Your task to perform on an android device: What's on my calendar tomorrow? Image 0: 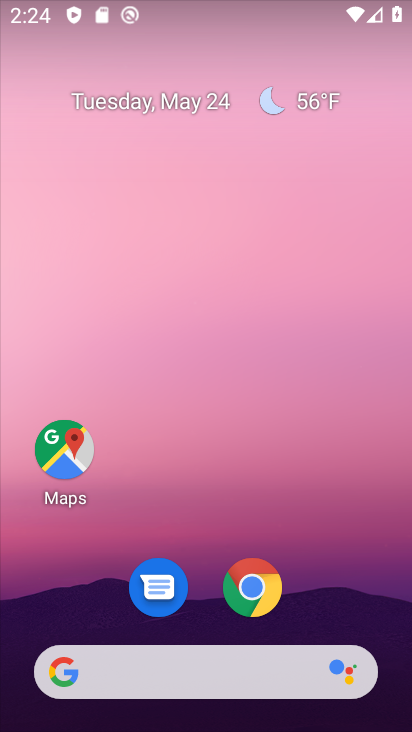
Step 0: click (177, 107)
Your task to perform on an android device: What's on my calendar tomorrow? Image 1: 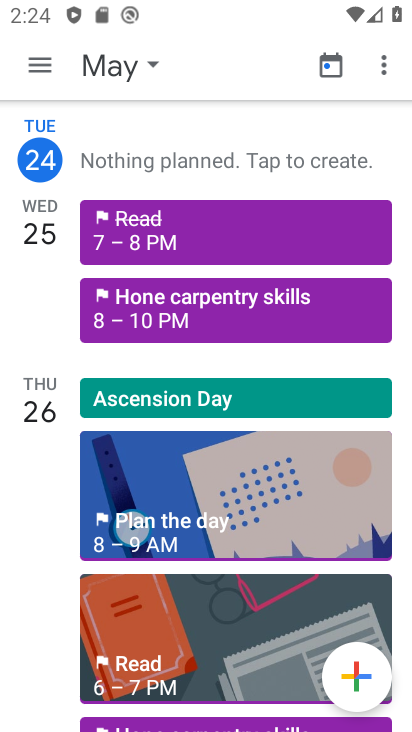
Step 1: click (132, 75)
Your task to perform on an android device: What's on my calendar tomorrow? Image 2: 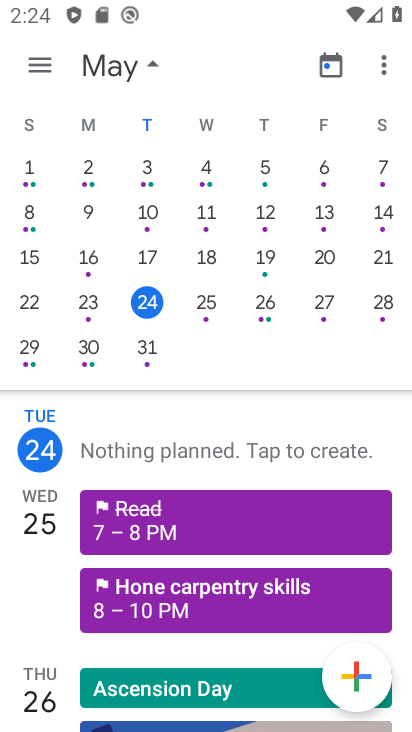
Step 2: click (207, 302)
Your task to perform on an android device: What's on my calendar tomorrow? Image 3: 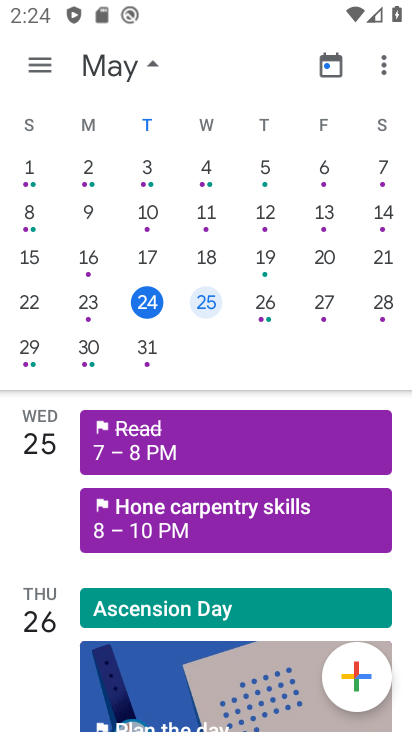
Step 3: task complete